Your task to perform on an android device: Open Google Chrome and open the bookmarks view Image 0: 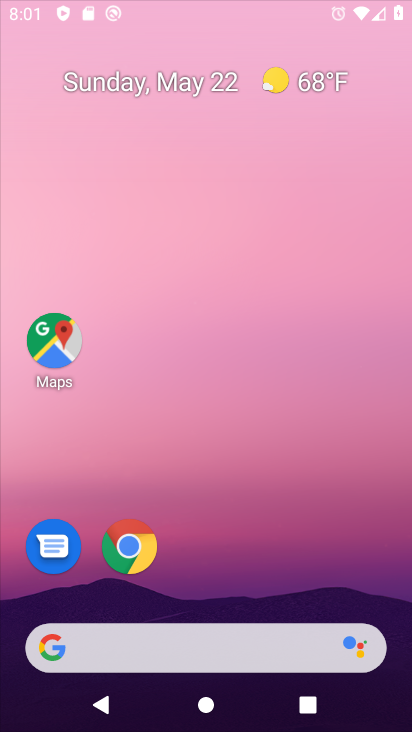
Step 0: drag from (256, 601) to (215, 64)
Your task to perform on an android device: Open Google Chrome and open the bookmarks view Image 1: 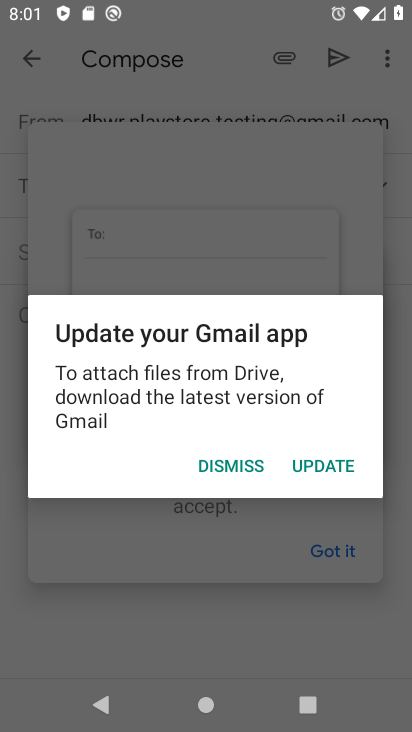
Step 1: click (332, 553)
Your task to perform on an android device: Open Google Chrome and open the bookmarks view Image 2: 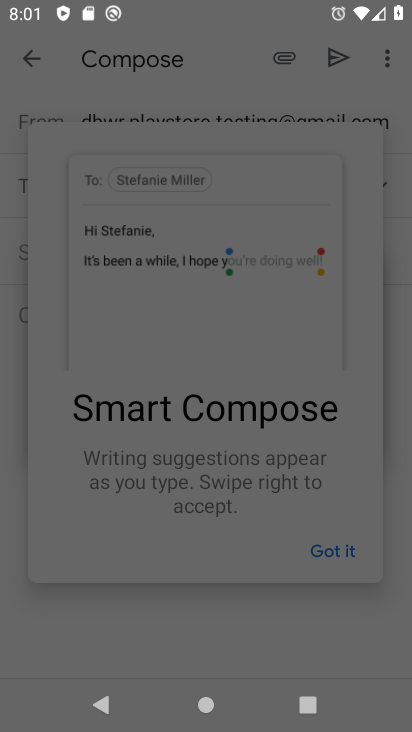
Step 2: click (331, 548)
Your task to perform on an android device: Open Google Chrome and open the bookmarks view Image 3: 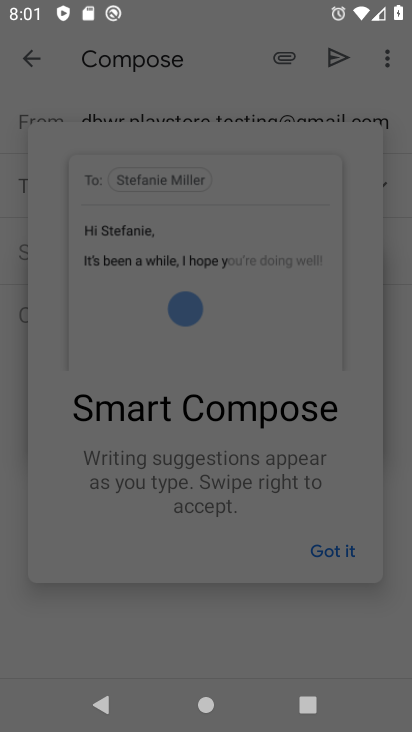
Step 3: press back button
Your task to perform on an android device: Open Google Chrome and open the bookmarks view Image 4: 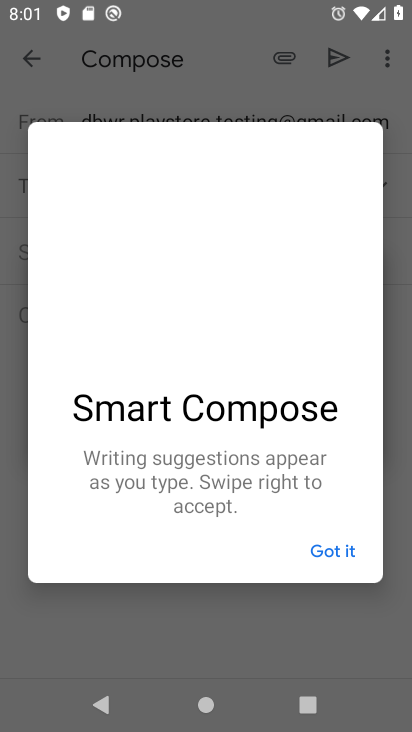
Step 4: click (328, 550)
Your task to perform on an android device: Open Google Chrome and open the bookmarks view Image 5: 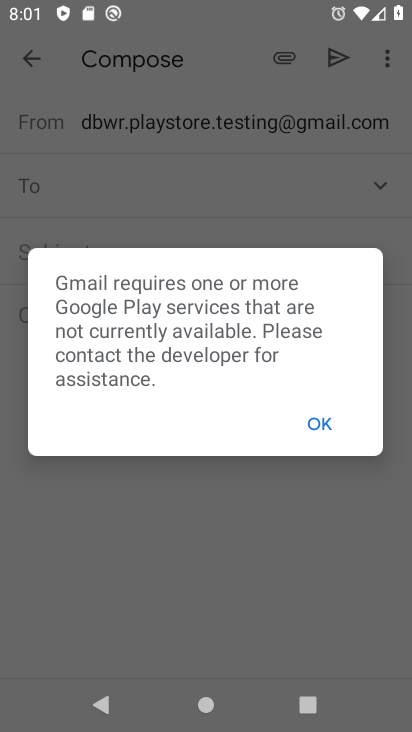
Step 5: click (321, 418)
Your task to perform on an android device: Open Google Chrome and open the bookmarks view Image 6: 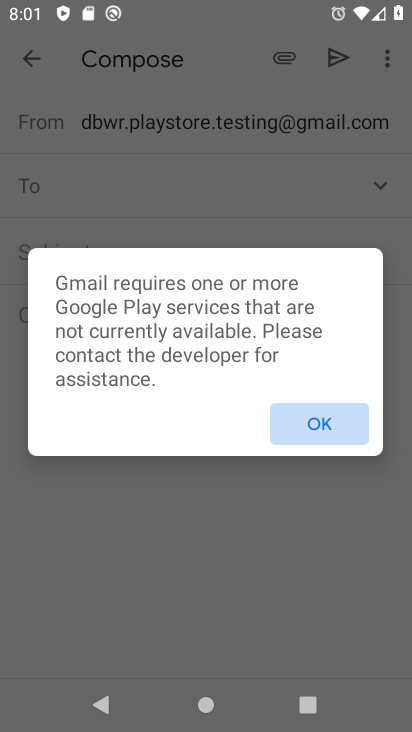
Step 6: click (316, 408)
Your task to perform on an android device: Open Google Chrome and open the bookmarks view Image 7: 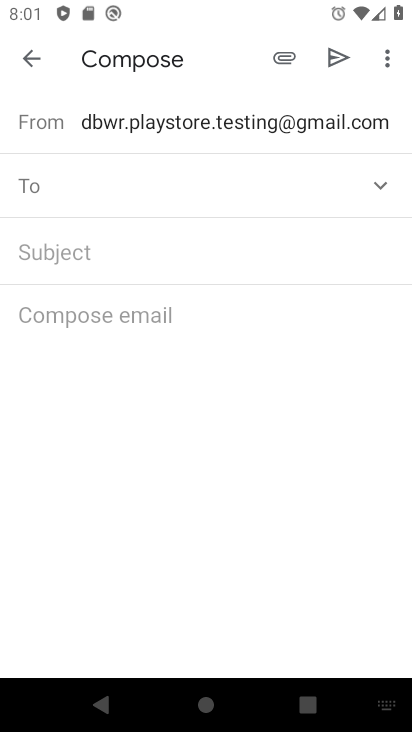
Step 7: click (19, 61)
Your task to perform on an android device: Open Google Chrome and open the bookmarks view Image 8: 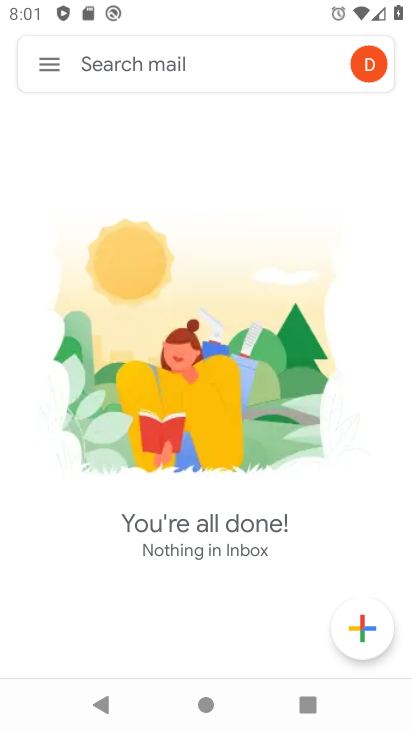
Step 8: press home button
Your task to perform on an android device: Open Google Chrome and open the bookmarks view Image 9: 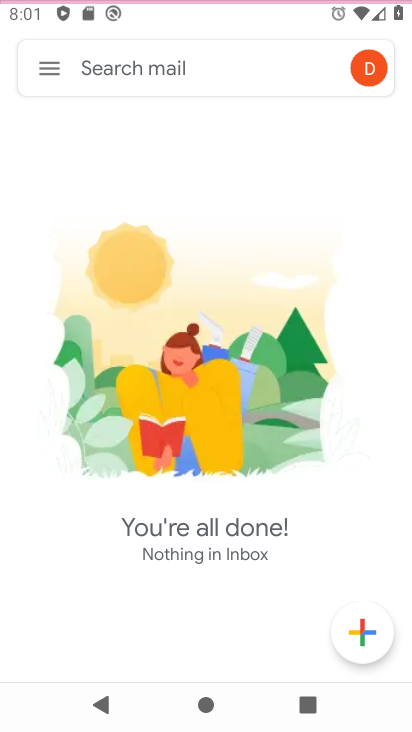
Step 9: press home button
Your task to perform on an android device: Open Google Chrome and open the bookmarks view Image 10: 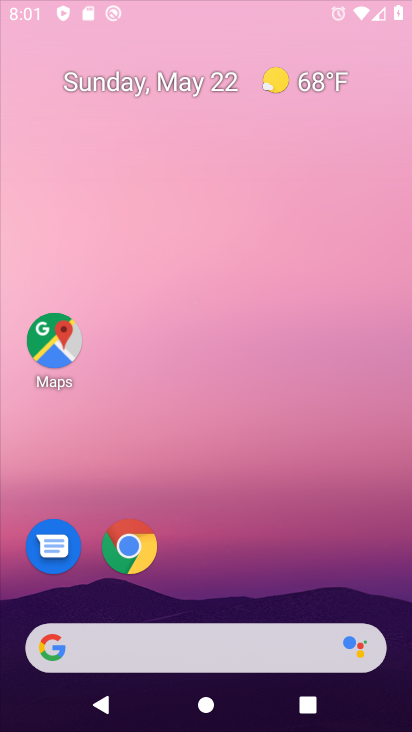
Step 10: press home button
Your task to perform on an android device: Open Google Chrome and open the bookmarks view Image 11: 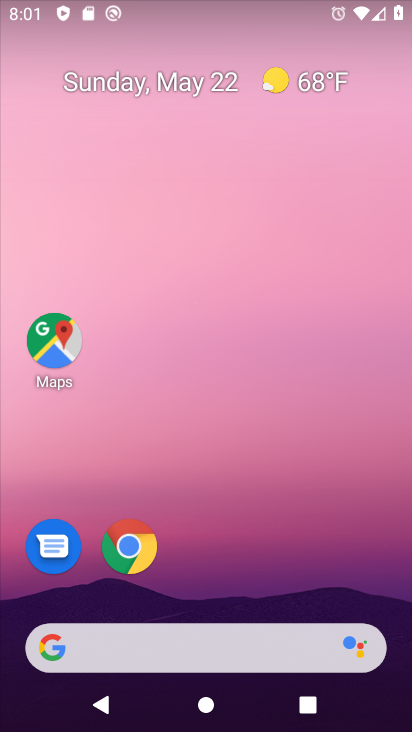
Step 11: drag from (248, 588) to (234, 91)
Your task to perform on an android device: Open Google Chrome and open the bookmarks view Image 12: 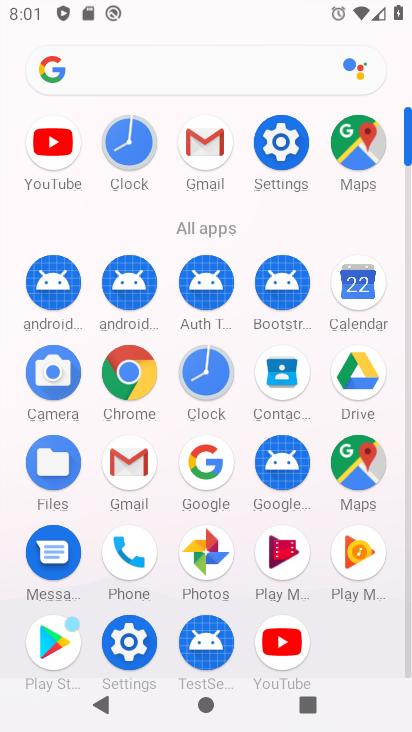
Step 12: drag from (207, 492) to (192, 283)
Your task to perform on an android device: Open Google Chrome and open the bookmarks view Image 13: 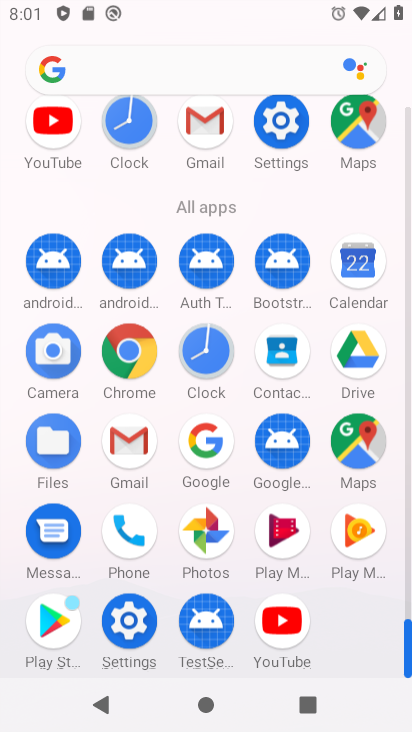
Step 13: drag from (210, 444) to (224, 252)
Your task to perform on an android device: Open Google Chrome and open the bookmarks view Image 14: 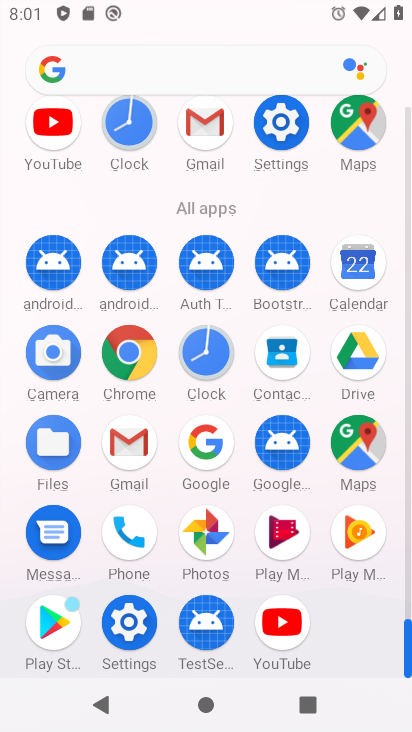
Step 14: click (131, 354)
Your task to perform on an android device: Open Google Chrome and open the bookmarks view Image 15: 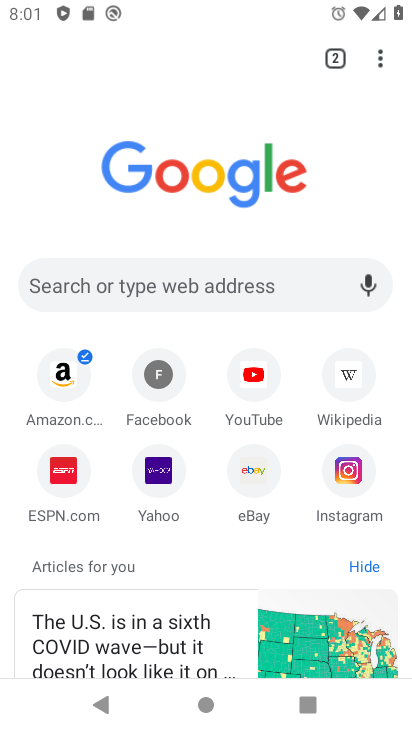
Step 15: drag from (381, 69) to (165, 218)
Your task to perform on an android device: Open Google Chrome and open the bookmarks view Image 16: 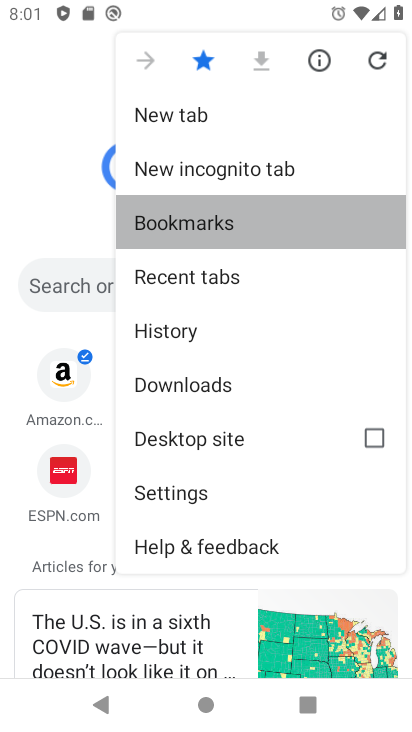
Step 16: click (165, 218)
Your task to perform on an android device: Open Google Chrome and open the bookmarks view Image 17: 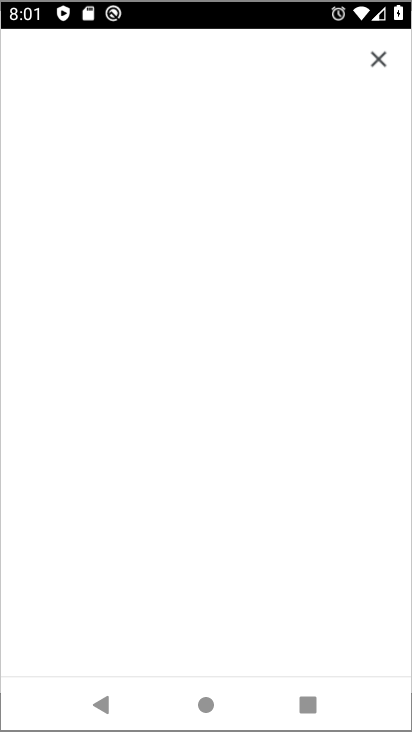
Step 17: click (165, 218)
Your task to perform on an android device: Open Google Chrome and open the bookmarks view Image 18: 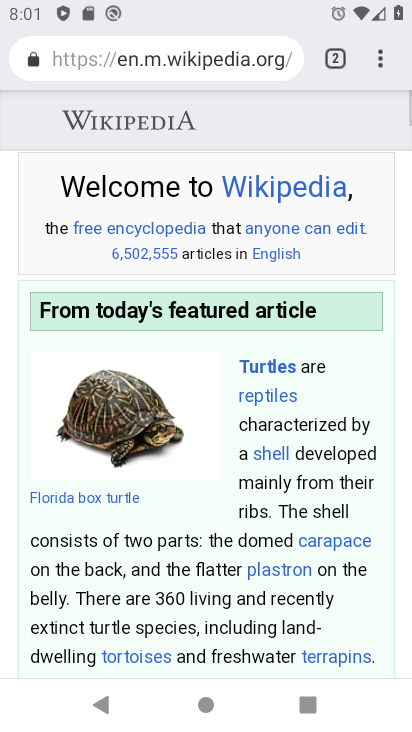
Step 18: task complete